Your task to perform on an android device: open chrome privacy settings Image 0: 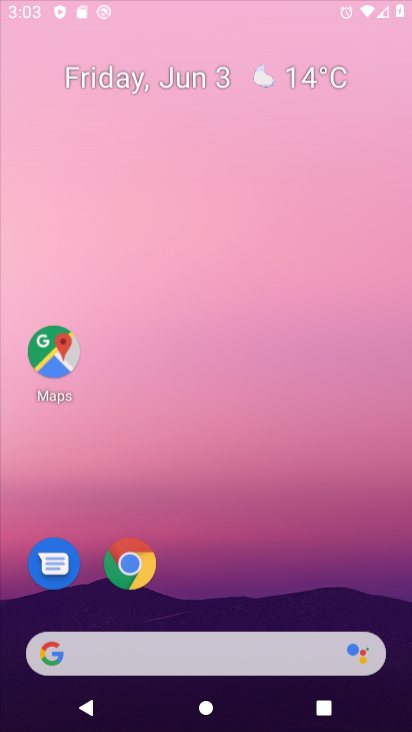
Step 0: click (187, 176)
Your task to perform on an android device: open chrome privacy settings Image 1: 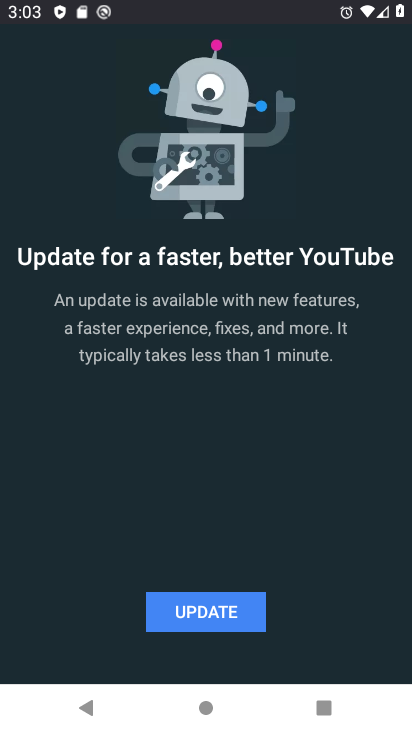
Step 1: press home button
Your task to perform on an android device: open chrome privacy settings Image 2: 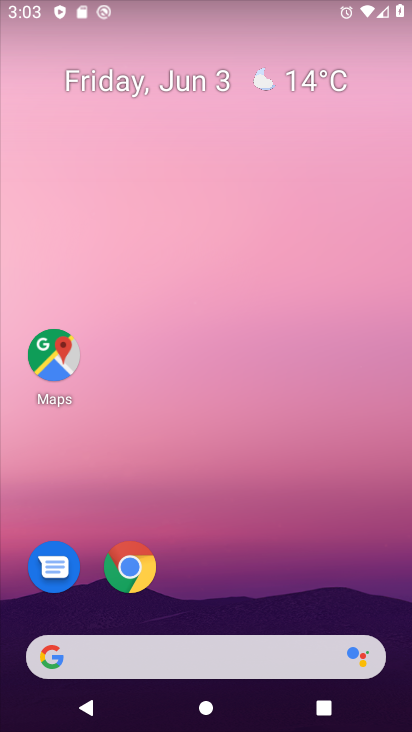
Step 2: drag from (208, 655) to (260, 95)
Your task to perform on an android device: open chrome privacy settings Image 3: 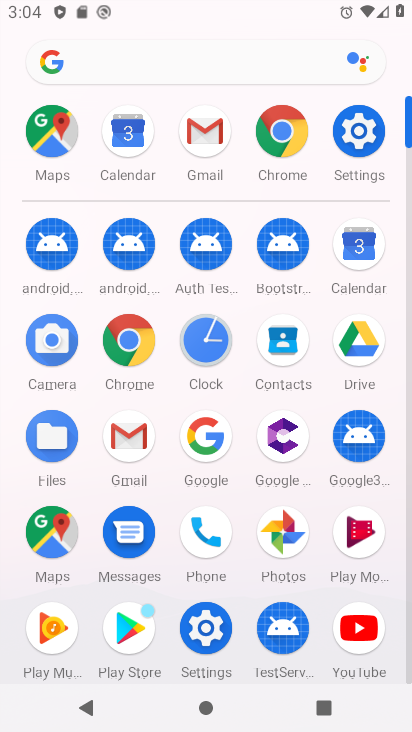
Step 3: click (351, 124)
Your task to perform on an android device: open chrome privacy settings Image 4: 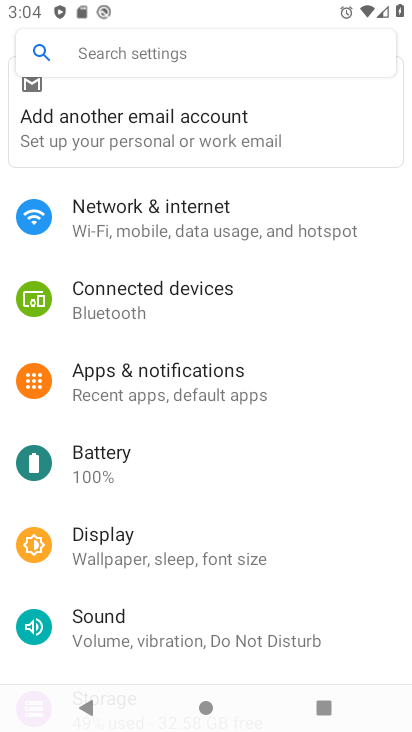
Step 4: press home button
Your task to perform on an android device: open chrome privacy settings Image 5: 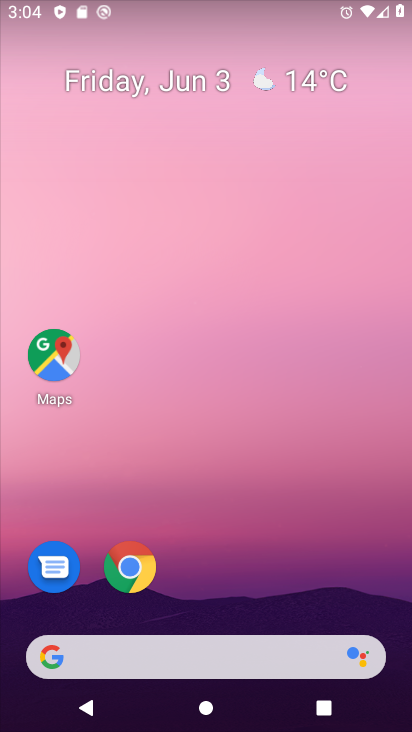
Step 5: drag from (198, 644) to (273, 211)
Your task to perform on an android device: open chrome privacy settings Image 6: 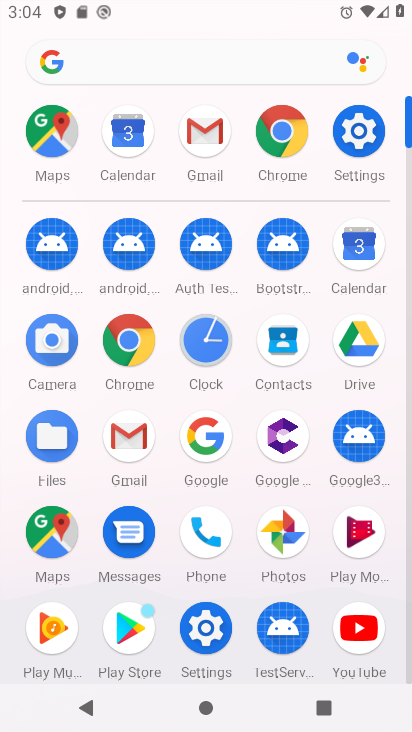
Step 6: click (132, 337)
Your task to perform on an android device: open chrome privacy settings Image 7: 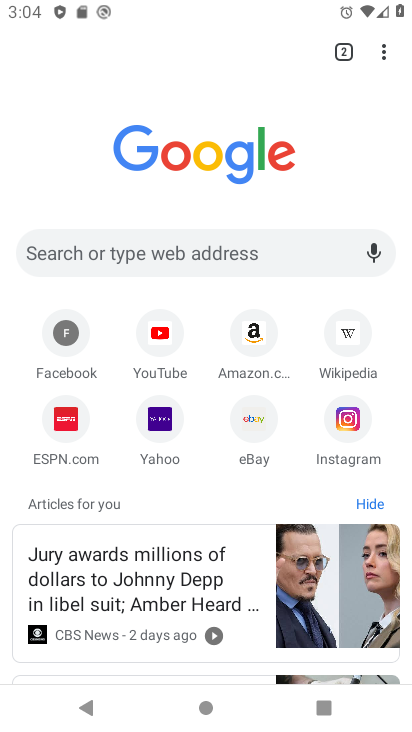
Step 7: click (374, 58)
Your task to perform on an android device: open chrome privacy settings Image 8: 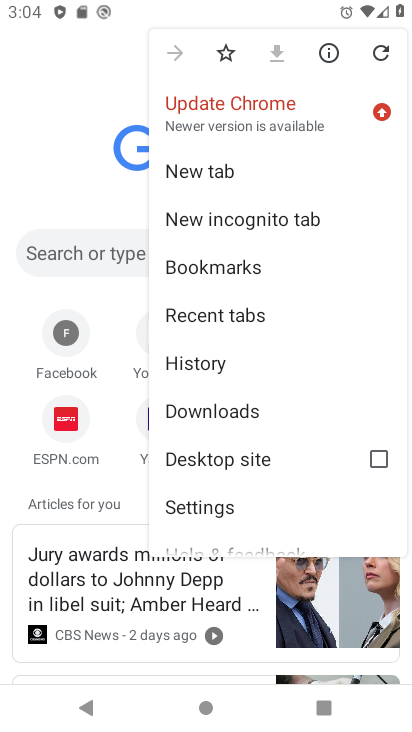
Step 8: click (242, 504)
Your task to perform on an android device: open chrome privacy settings Image 9: 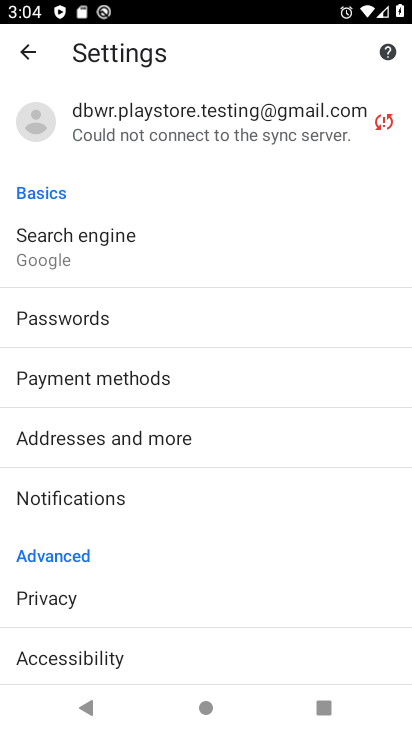
Step 9: click (68, 603)
Your task to perform on an android device: open chrome privacy settings Image 10: 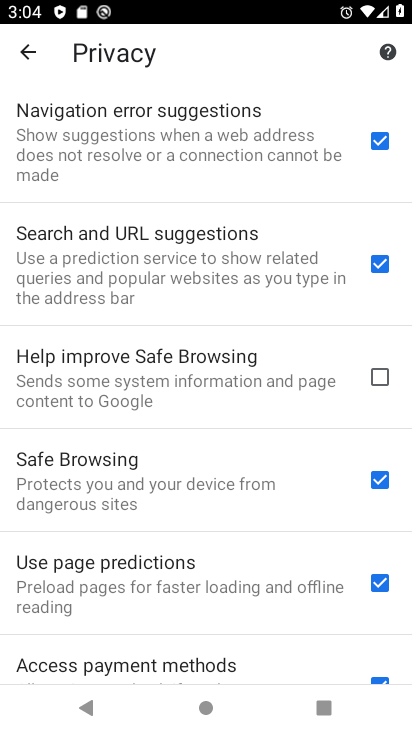
Step 10: task complete